Your task to perform on an android device: Open accessibility settings Image 0: 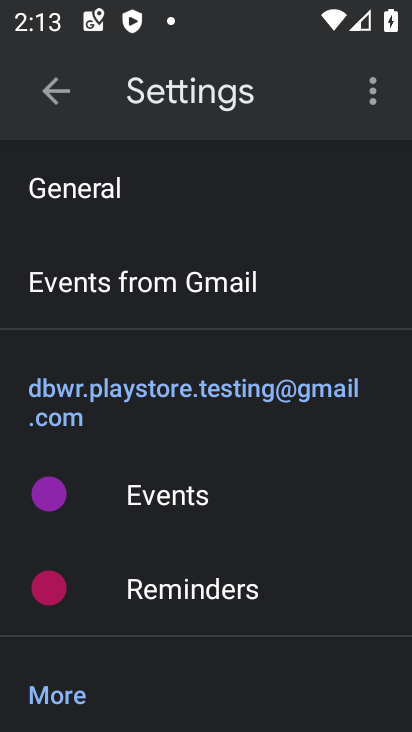
Step 0: press home button
Your task to perform on an android device: Open accessibility settings Image 1: 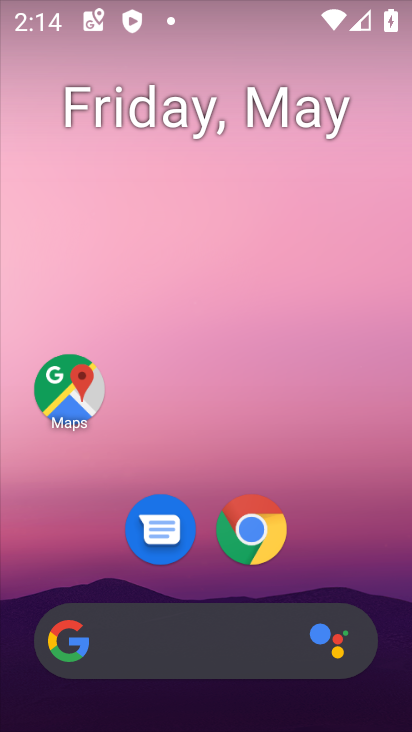
Step 1: drag from (342, 573) to (212, 9)
Your task to perform on an android device: Open accessibility settings Image 2: 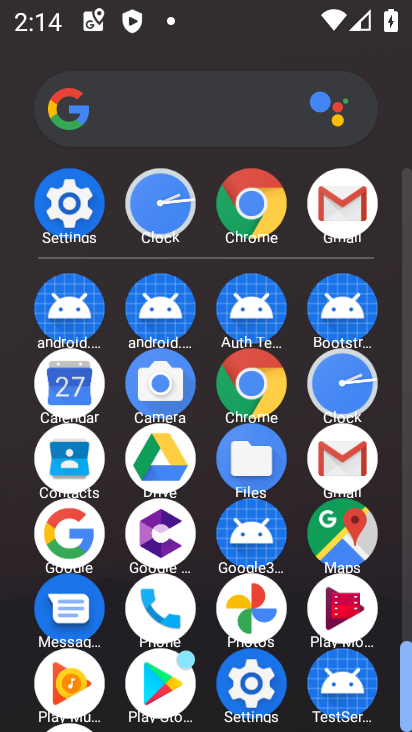
Step 2: click (84, 200)
Your task to perform on an android device: Open accessibility settings Image 3: 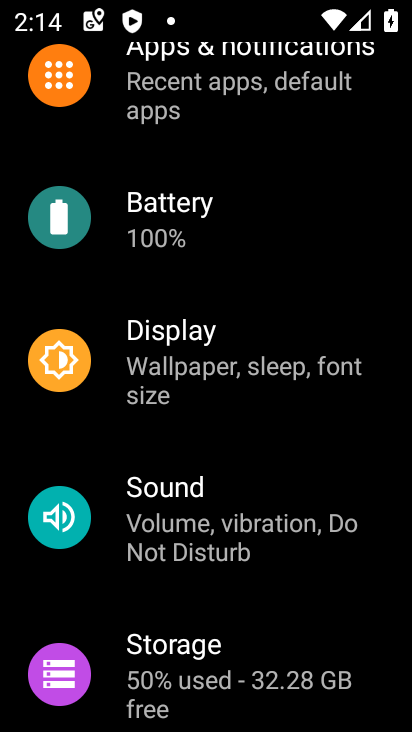
Step 3: drag from (284, 581) to (223, 194)
Your task to perform on an android device: Open accessibility settings Image 4: 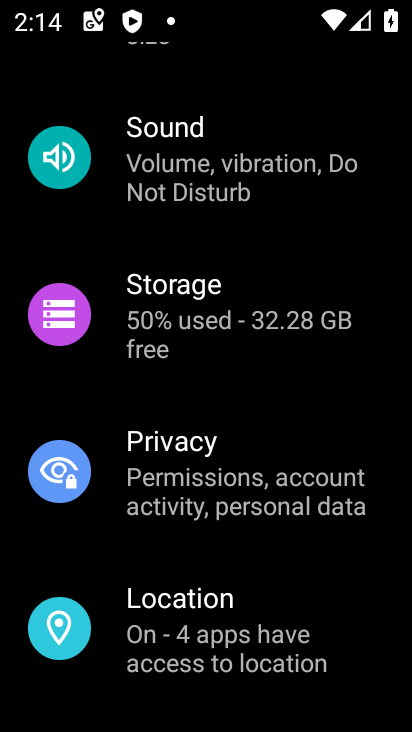
Step 4: drag from (290, 637) to (233, 142)
Your task to perform on an android device: Open accessibility settings Image 5: 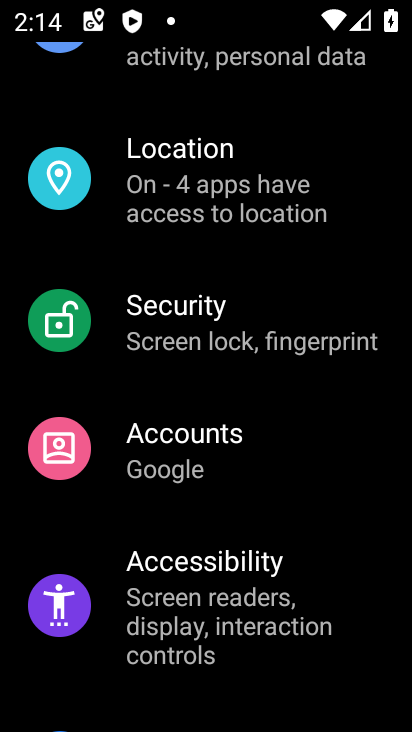
Step 5: click (240, 587)
Your task to perform on an android device: Open accessibility settings Image 6: 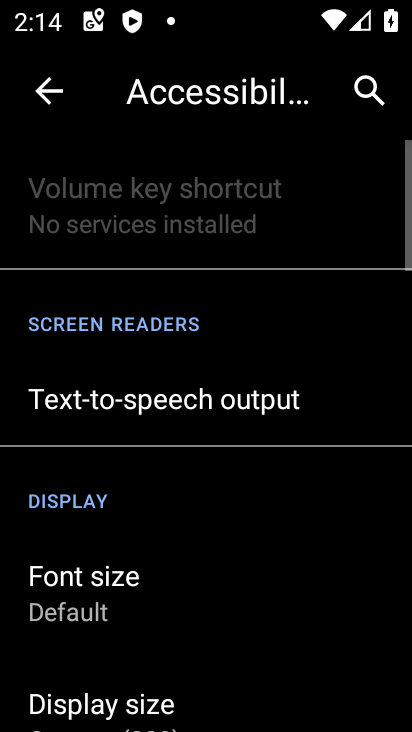
Step 6: task complete